Your task to perform on an android device: change alarm snooze length Image 0: 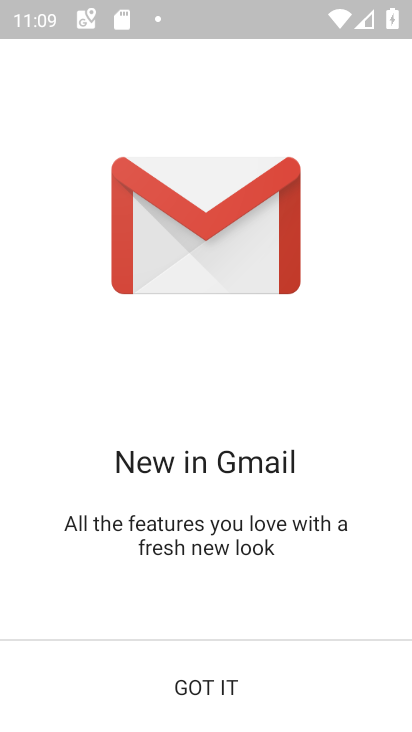
Step 0: press home button
Your task to perform on an android device: change alarm snooze length Image 1: 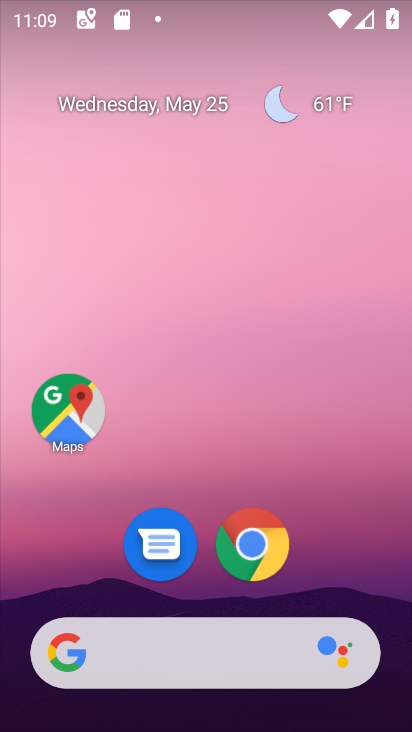
Step 1: drag from (341, 560) to (159, 281)
Your task to perform on an android device: change alarm snooze length Image 2: 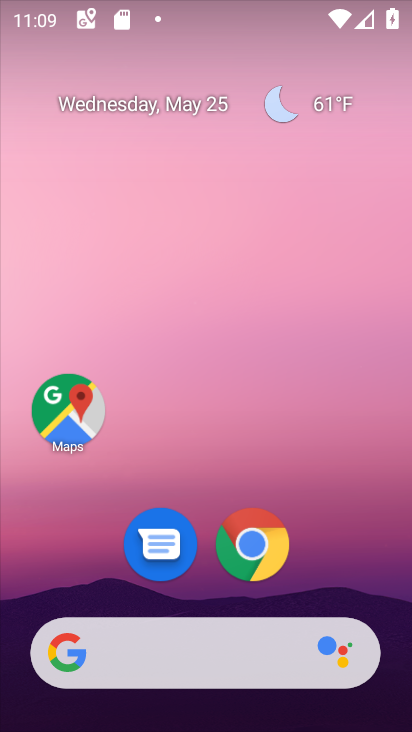
Step 2: drag from (317, 574) to (118, 134)
Your task to perform on an android device: change alarm snooze length Image 3: 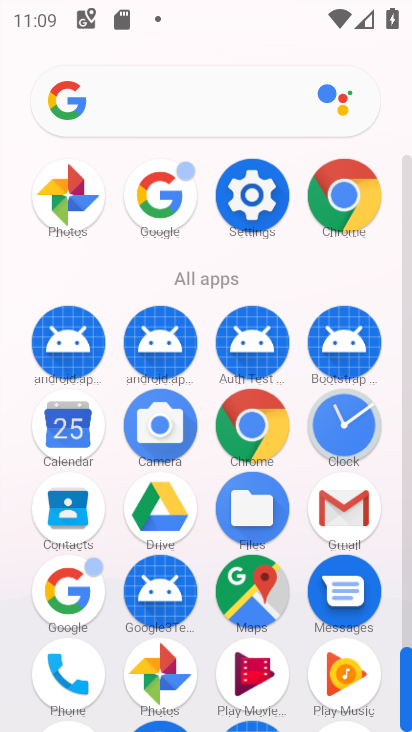
Step 3: click (347, 436)
Your task to perform on an android device: change alarm snooze length Image 4: 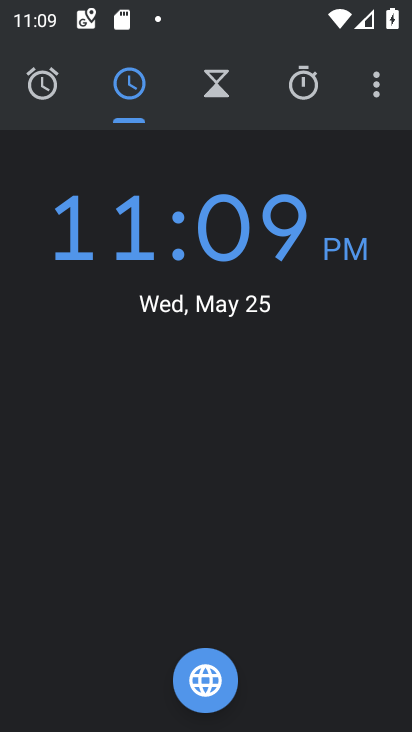
Step 4: click (377, 105)
Your task to perform on an android device: change alarm snooze length Image 5: 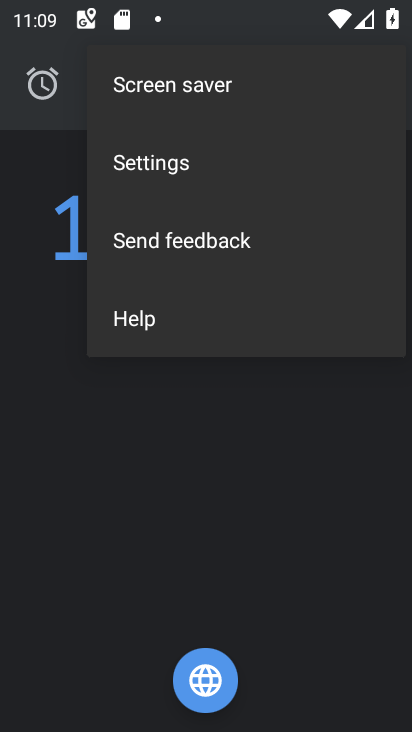
Step 5: click (268, 168)
Your task to perform on an android device: change alarm snooze length Image 6: 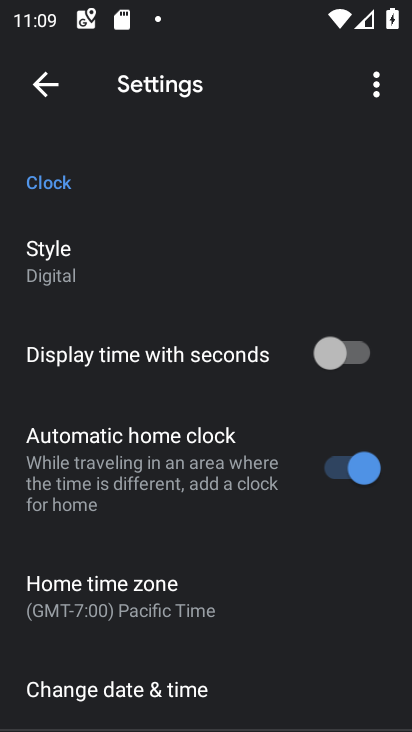
Step 6: drag from (155, 633) to (89, 269)
Your task to perform on an android device: change alarm snooze length Image 7: 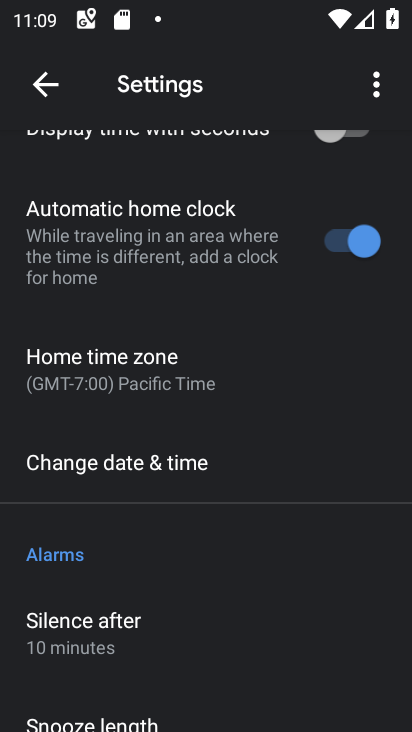
Step 7: click (120, 723)
Your task to perform on an android device: change alarm snooze length Image 8: 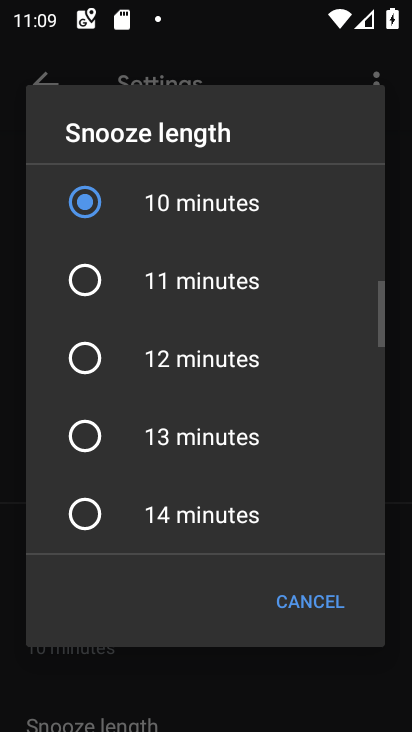
Step 8: click (100, 516)
Your task to perform on an android device: change alarm snooze length Image 9: 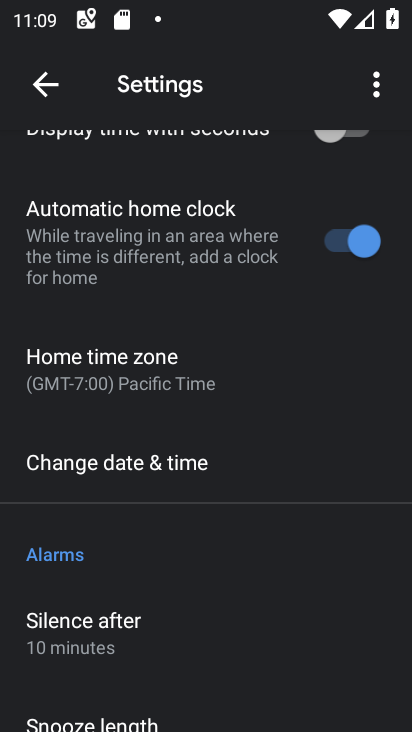
Step 9: task complete